Your task to perform on an android device: see creations saved in the google photos Image 0: 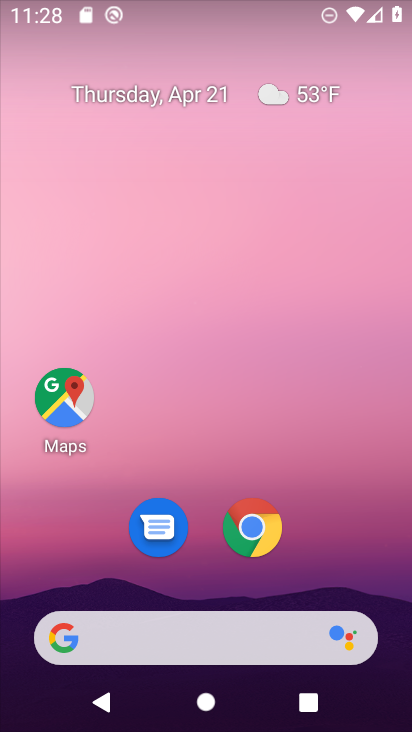
Step 0: drag from (356, 561) to (352, 153)
Your task to perform on an android device: see creations saved in the google photos Image 1: 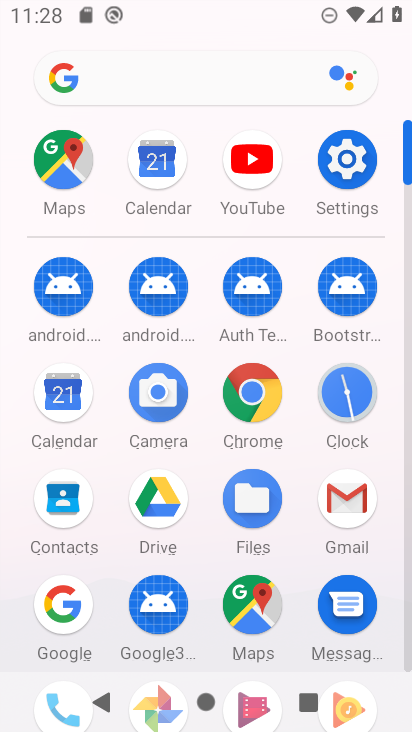
Step 1: drag from (392, 620) to (401, 330)
Your task to perform on an android device: see creations saved in the google photos Image 2: 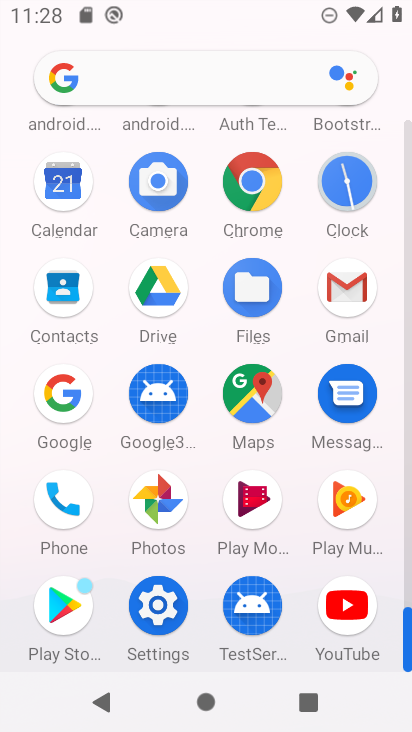
Step 2: click (177, 486)
Your task to perform on an android device: see creations saved in the google photos Image 3: 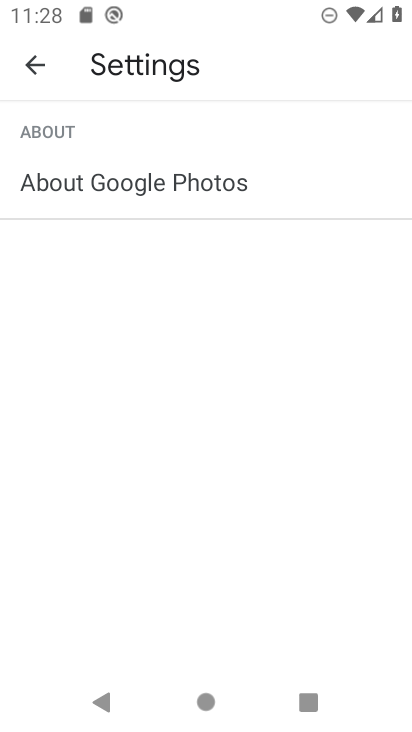
Step 3: click (37, 67)
Your task to perform on an android device: see creations saved in the google photos Image 4: 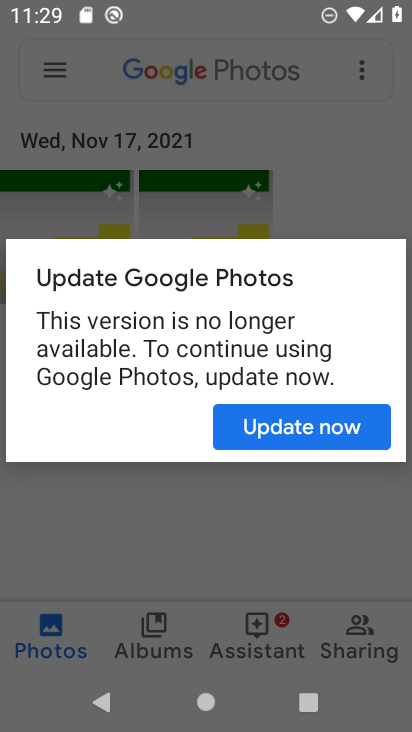
Step 4: click (313, 424)
Your task to perform on an android device: see creations saved in the google photos Image 5: 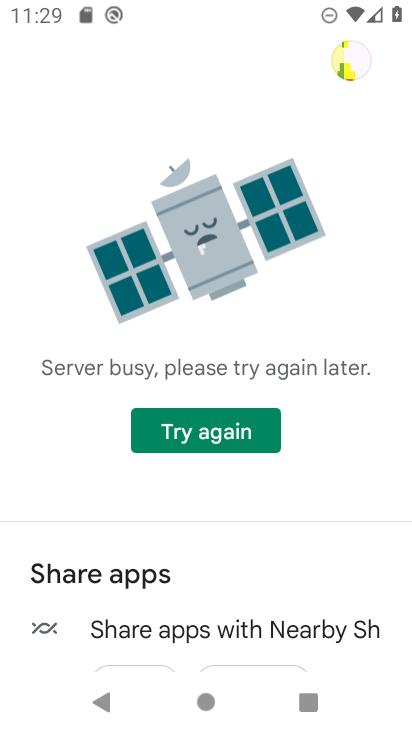
Step 5: task complete